Your task to perform on an android device: Turn on the flashlight Image 0: 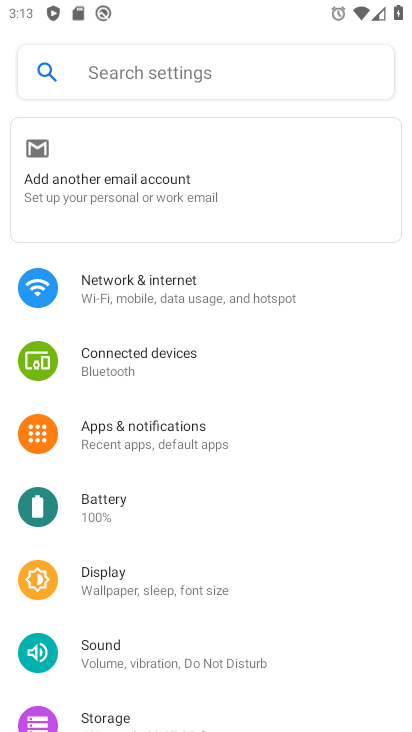
Step 0: drag from (232, 555) to (232, 166)
Your task to perform on an android device: Turn on the flashlight Image 1: 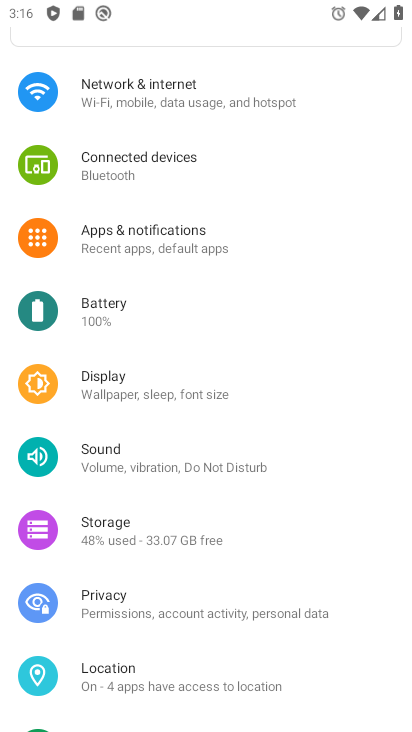
Step 1: task complete